Your task to perform on an android device: refresh tabs in the chrome app Image 0: 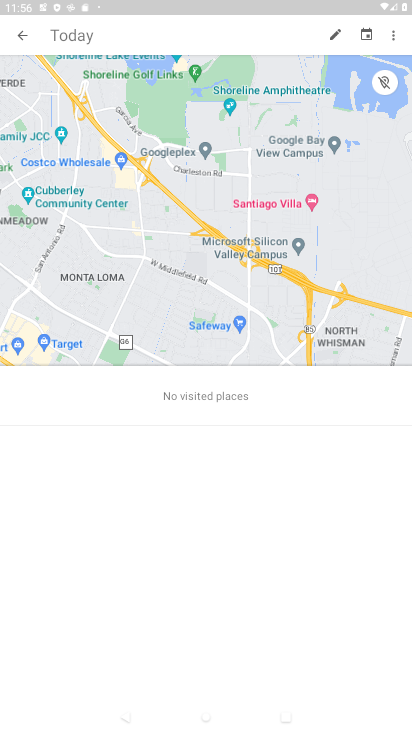
Step 0: press home button
Your task to perform on an android device: refresh tabs in the chrome app Image 1: 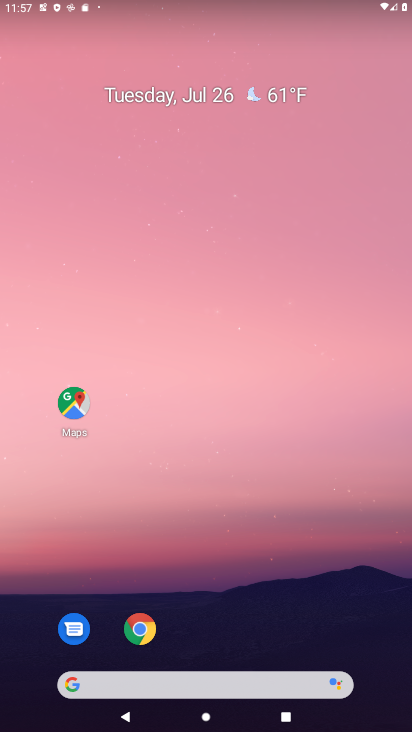
Step 1: click (146, 650)
Your task to perform on an android device: refresh tabs in the chrome app Image 2: 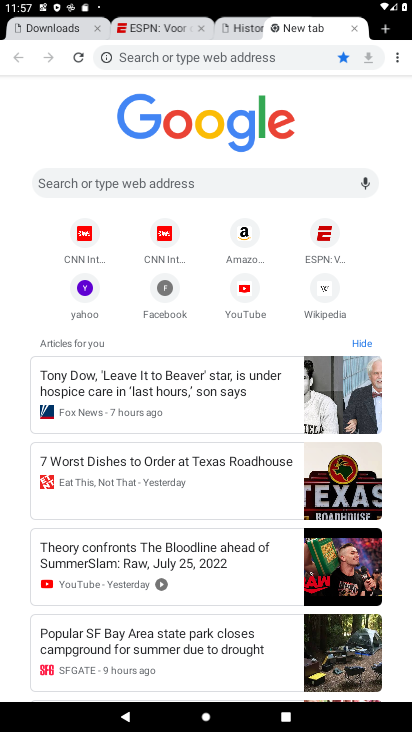
Step 2: click (75, 64)
Your task to perform on an android device: refresh tabs in the chrome app Image 3: 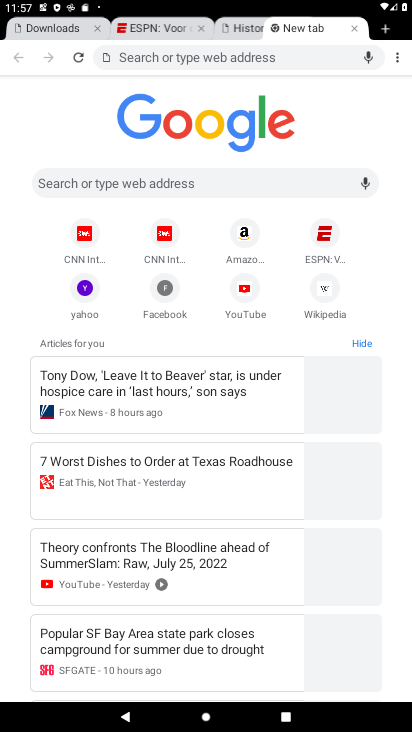
Step 3: task complete